Your task to perform on an android device: check battery use Image 0: 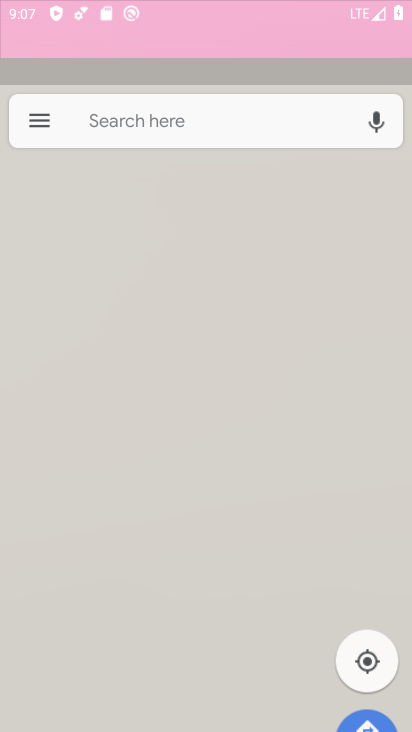
Step 0: drag from (203, 218) to (199, 133)
Your task to perform on an android device: check battery use Image 1: 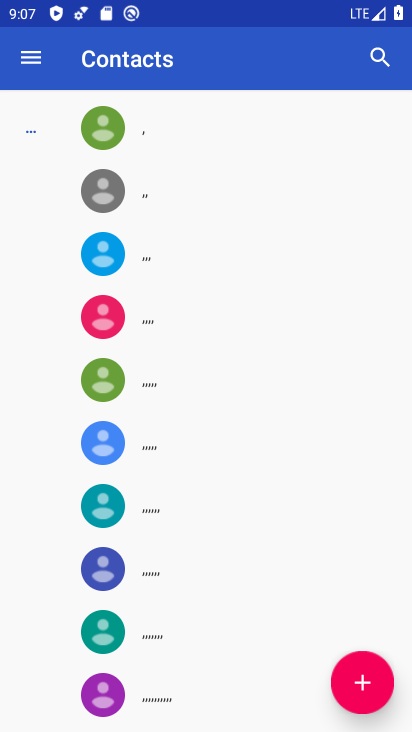
Step 1: press home button
Your task to perform on an android device: check battery use Image 2: 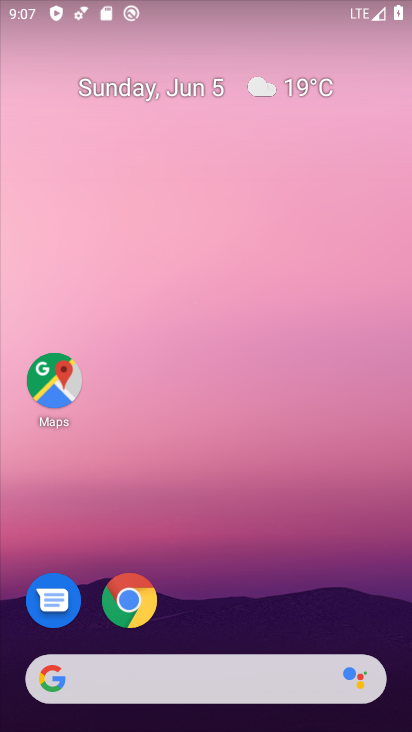
Step 2: drag from (264, 615) to (188, 191)
Your task to perform on an android device: check battery use Image 3: 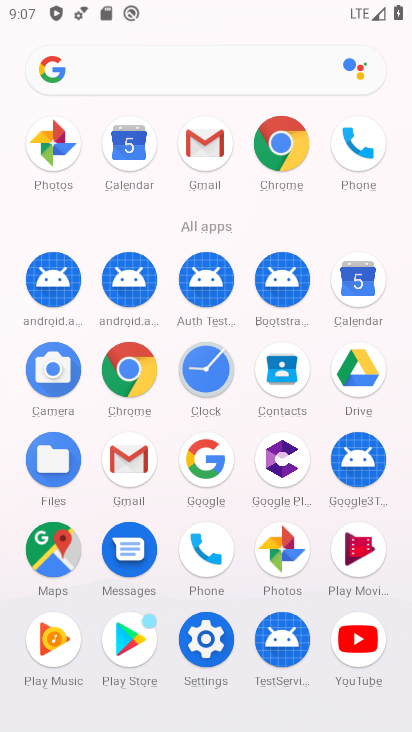
Step 3: click (209, 636)
Your task to perform on an android device: check battery use Image 4: 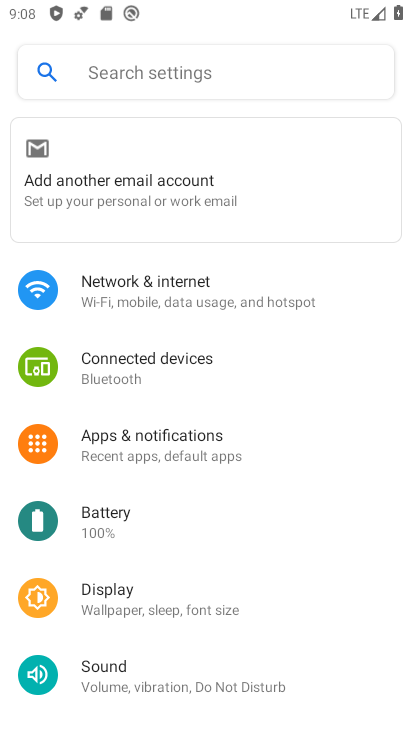
Step 4: click (147, 545)
Your task to perform on an android device: check battery use Image 5: 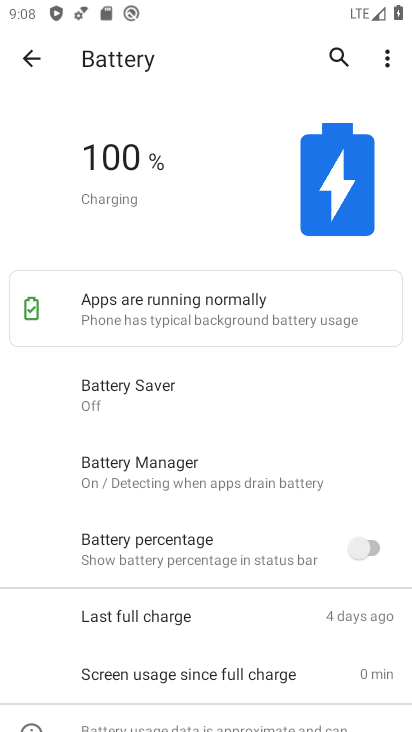
Step 5: click (388, 54)
Your task to perform on an android device: check battery use Image 6: 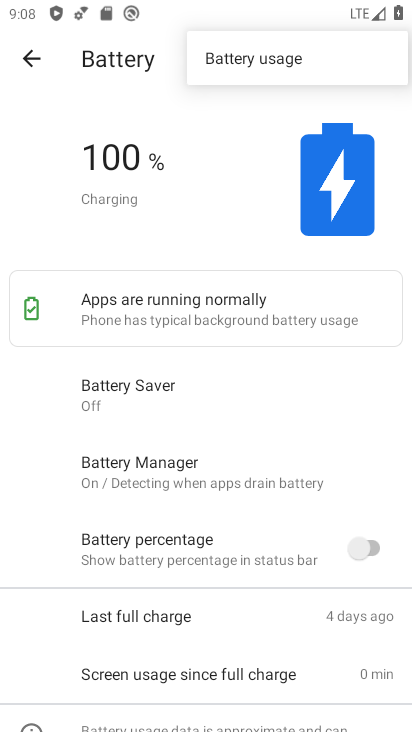
Step 6: click (358, 62)
Your task to perform on an android device: check battery use Image 7: 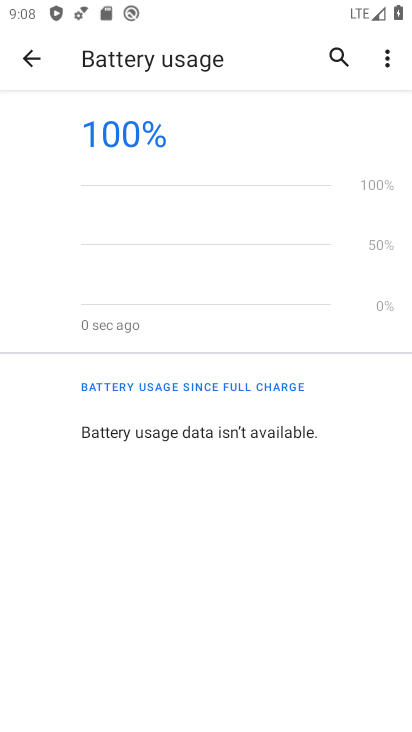
Step 7: task complete